Your task to perform on an android device: Open Android settings Image 0: 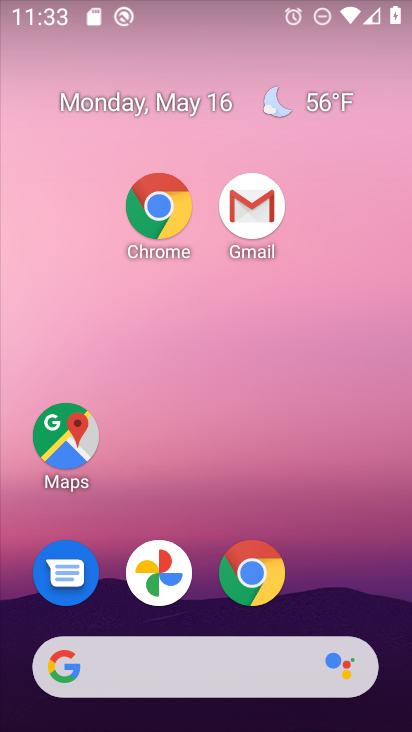
Step 0: drag from (315, 466) to (150, 101)
Your task to perform on an android device: Open Android settings Image 1: 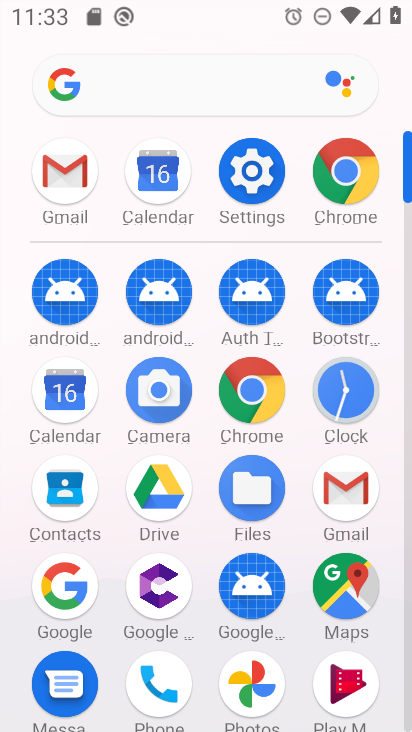
Step 1: click (249, 178)
Your task to perform on an android device: Open Android settings Image 2: 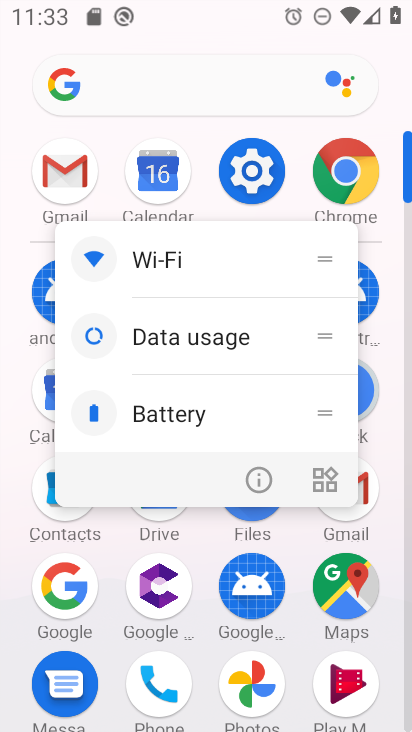
Step 2: click (249, 174)
Your task to perform on an android device: Open Android settings Image 3: 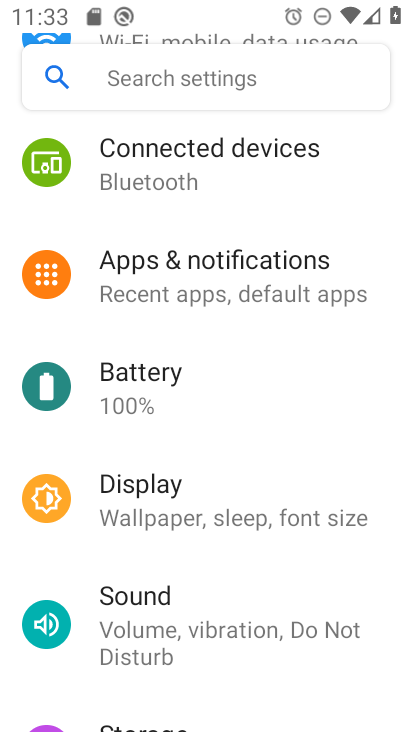
Step 3: drag from (193, 576) to (145, 100)
Your task to perform on an android device: Open Android settings Image 4: 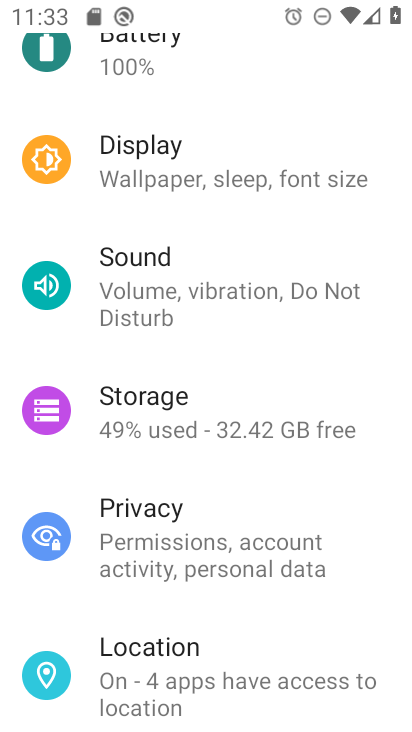
Step 4: drag from (217, 389) to (171, 81)
Your task to perform on an android device: Open Android settings Image 5: 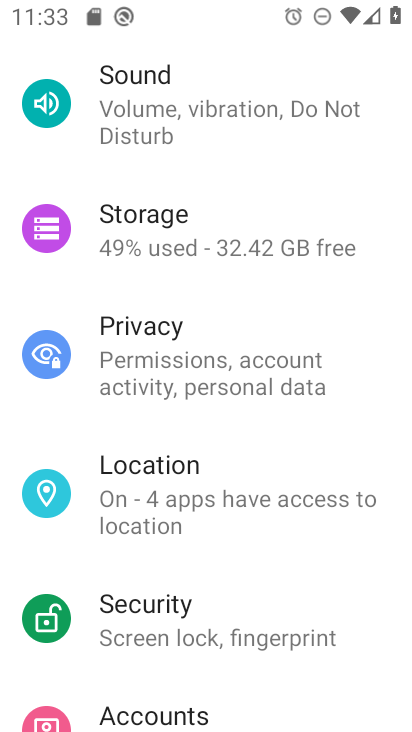
Step 5: drag from (151, 363) to (152, 223)
Your task to perform on an android device: Open Android settings Image 6: 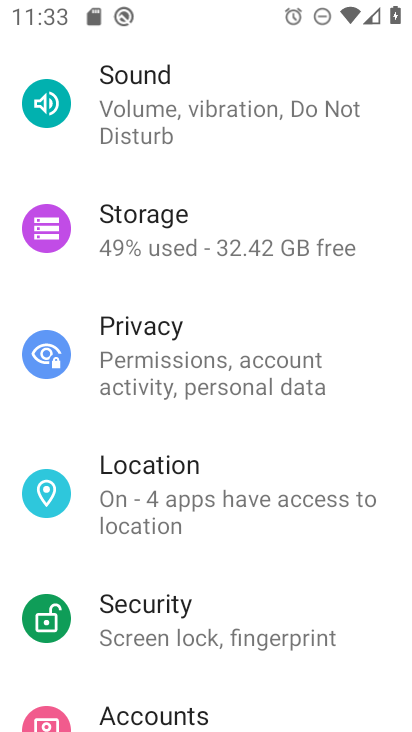
Step 6: drag from (186, 443) to (143, 162)
Your task to perform on an android device: Open Android settings Image 7: 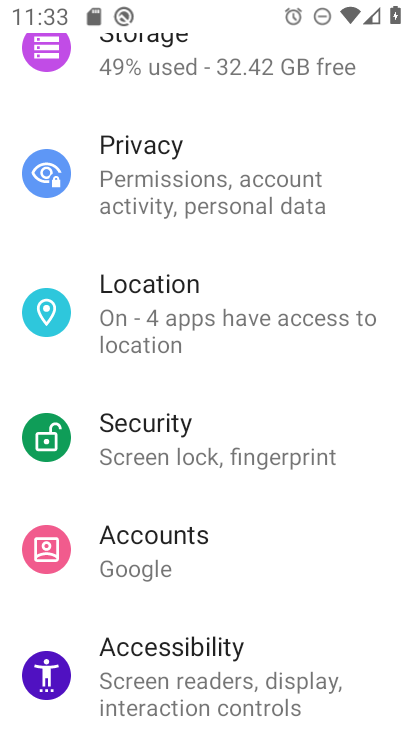
Step 7: drag from (168, 522) to (147, 205)
Your task to perform on an android device: Open Android settings Image 8: 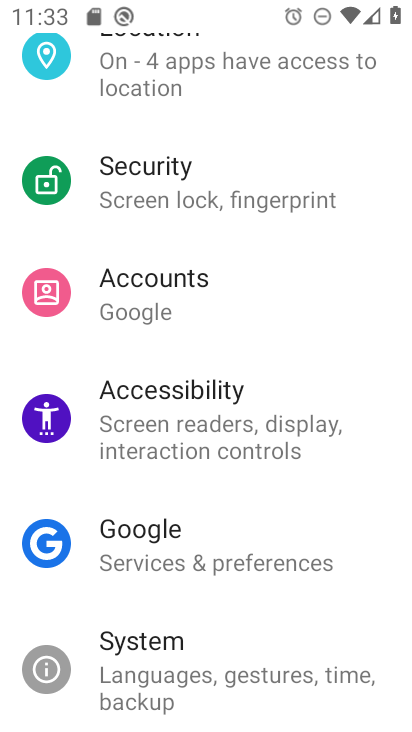
Step 8: drag from (196, 522) to (205, 225)
Your task to perform on an android device: Open Android settings Image 9: 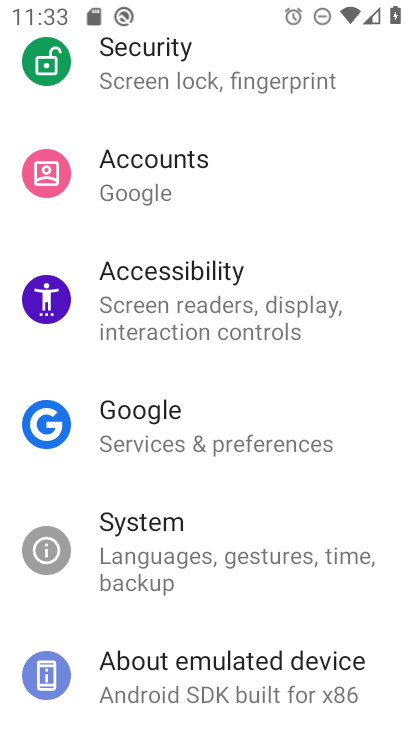
Step 9: click (178, 686)
Your task to perform on an android device: Open Android settings Image 10: 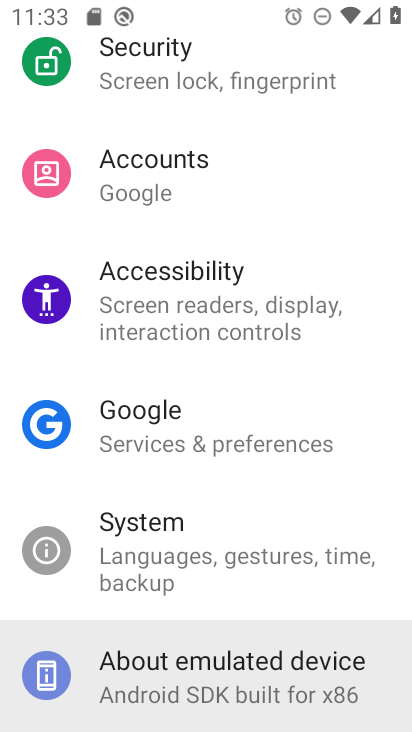
Step 10: click (184, 682)
Your task to perform on an android device: Open Android settings Image 11: 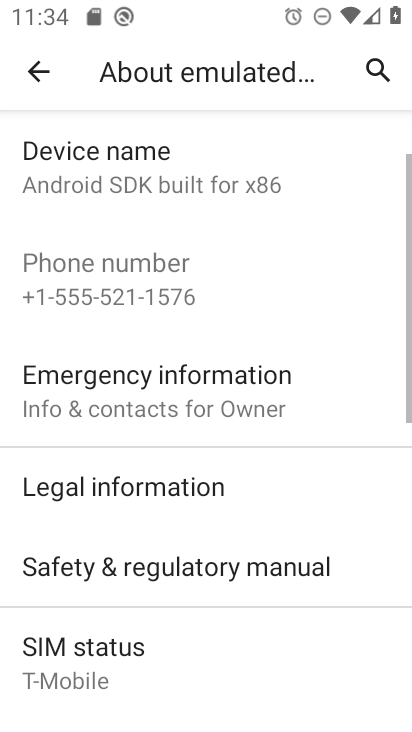
Step 11: task complete